Your task to perform on an android device: check google app version Image 0: 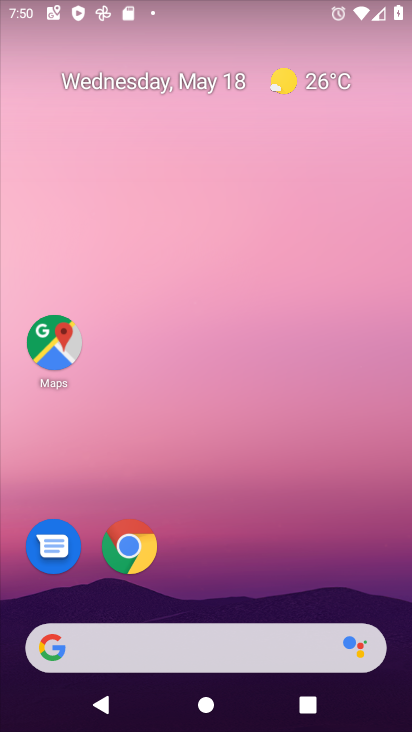
Step 0: drag from (386, 627) to (265, 97)
Your task to perform on an android device: check google app version Image 1: 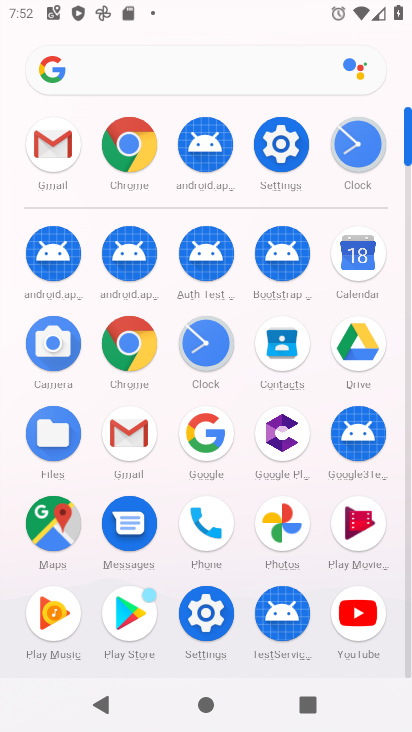
Step 1: click (212, 430)
Your task to perform on an android device: check google app version Image 2: 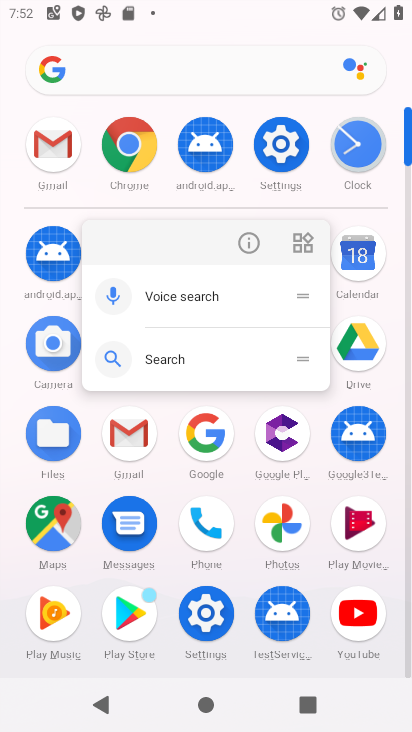
Step 2: click (257, 241)
Your task to perform on an android device: check google app version Image 3: 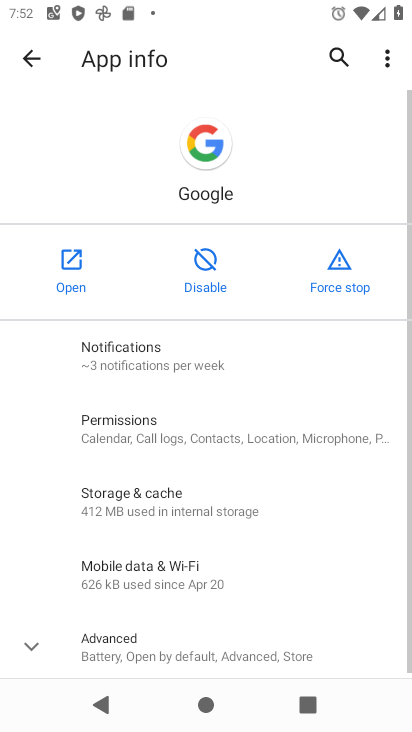
Step 3: drag from (178, 625) to (194, 56)
Your task to perform on an android device: check google app version Image 4: 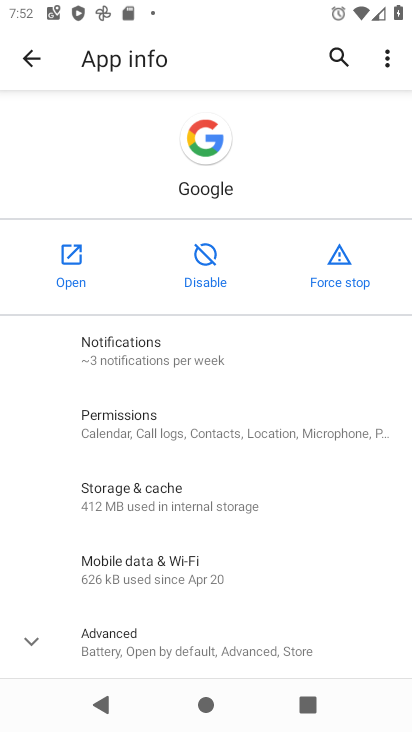
Step 4: click (40, 640)
Your task to perform on an android device: check google app version Image 5: 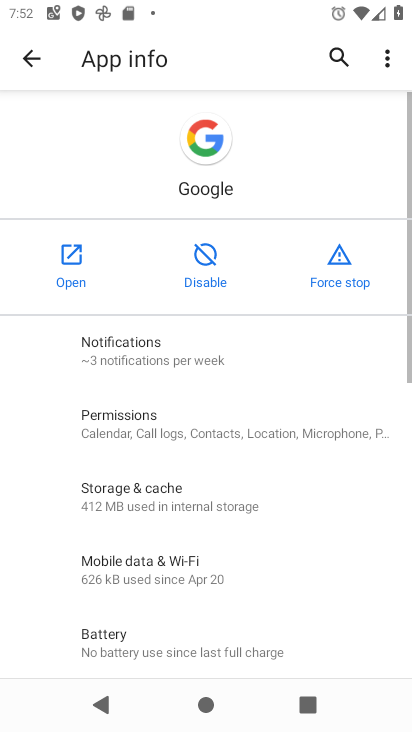
Step 5: task complete